Your task to perform on an android device: toggle airplane mode Image 0: 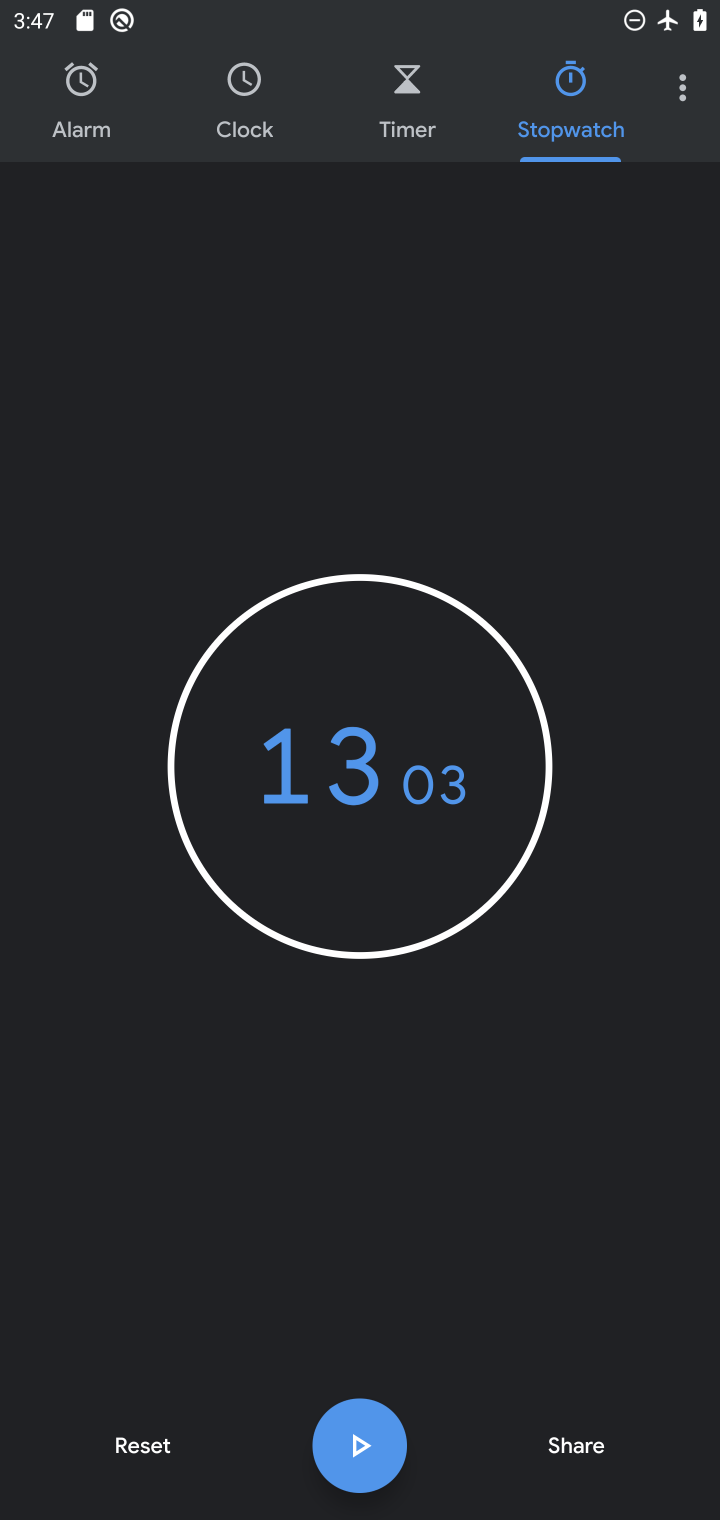
Step 0: press home button
Your task to perform on an android device: toggle airplane mode Image 1: 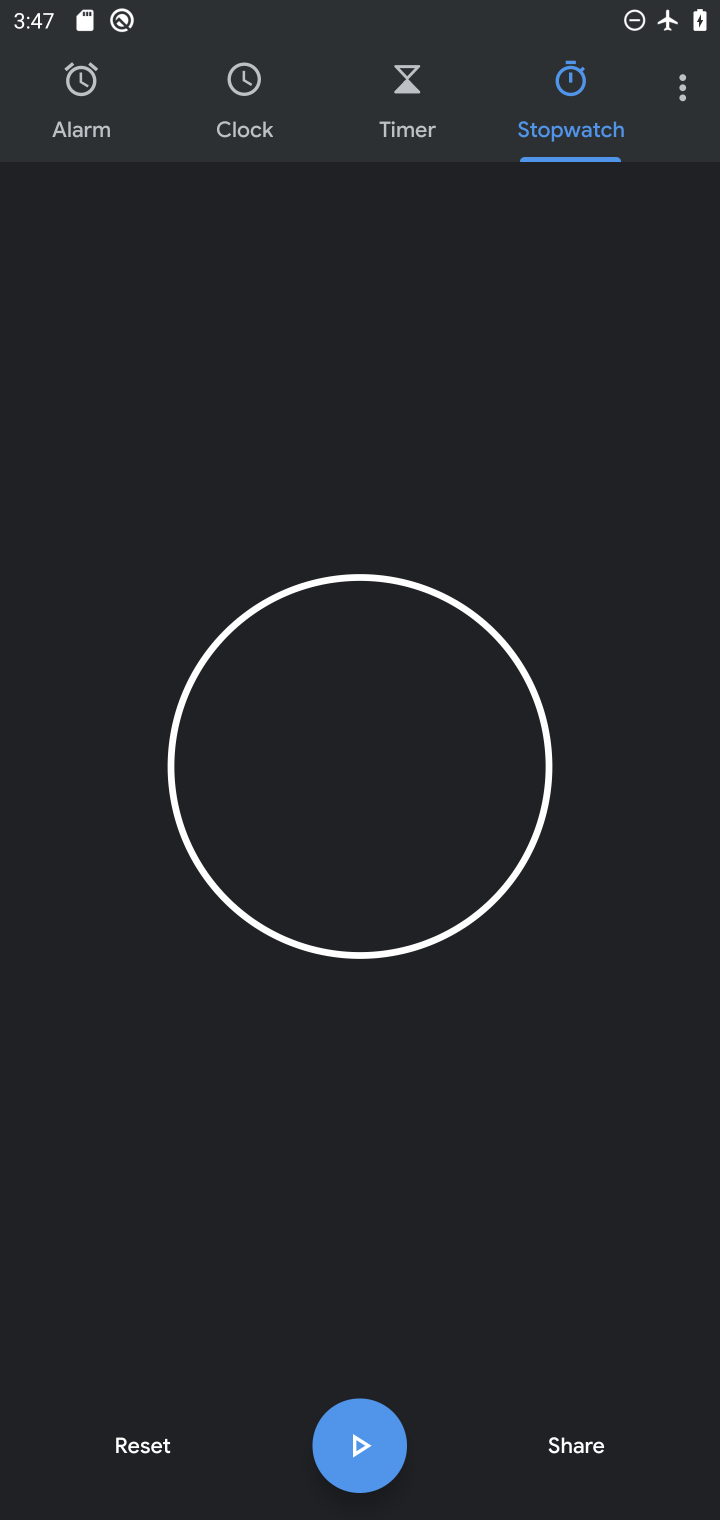
Step 1: press home button
Your task to perform on an android device: toggle airplane mode Image 2: 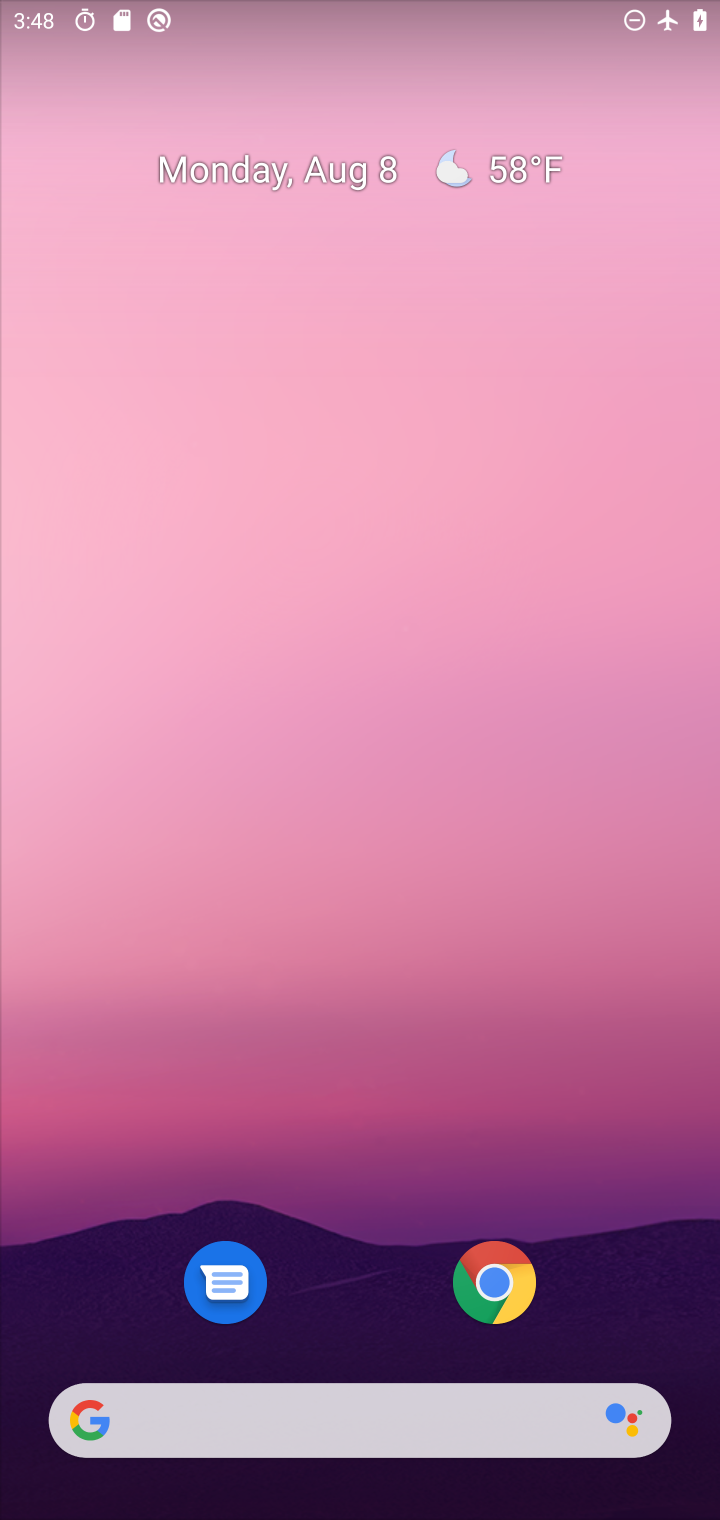
Step 2: drag from (394, 1254) to (474, 401)
Your task to perform on an android device: toggle airplane mode Image 3: 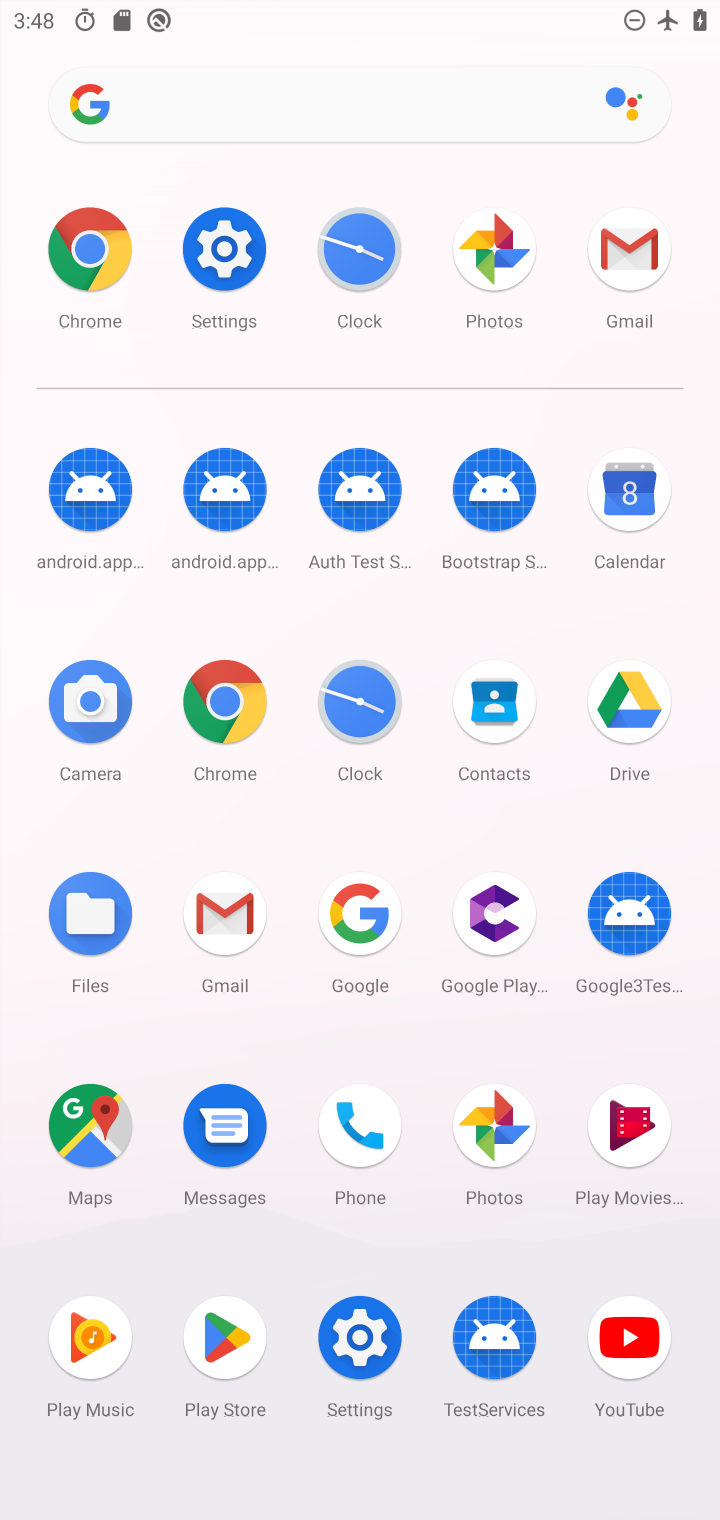
Step 3: click (251, 250)
Your task to perform on an android device: toggle airplane mode Image 4: 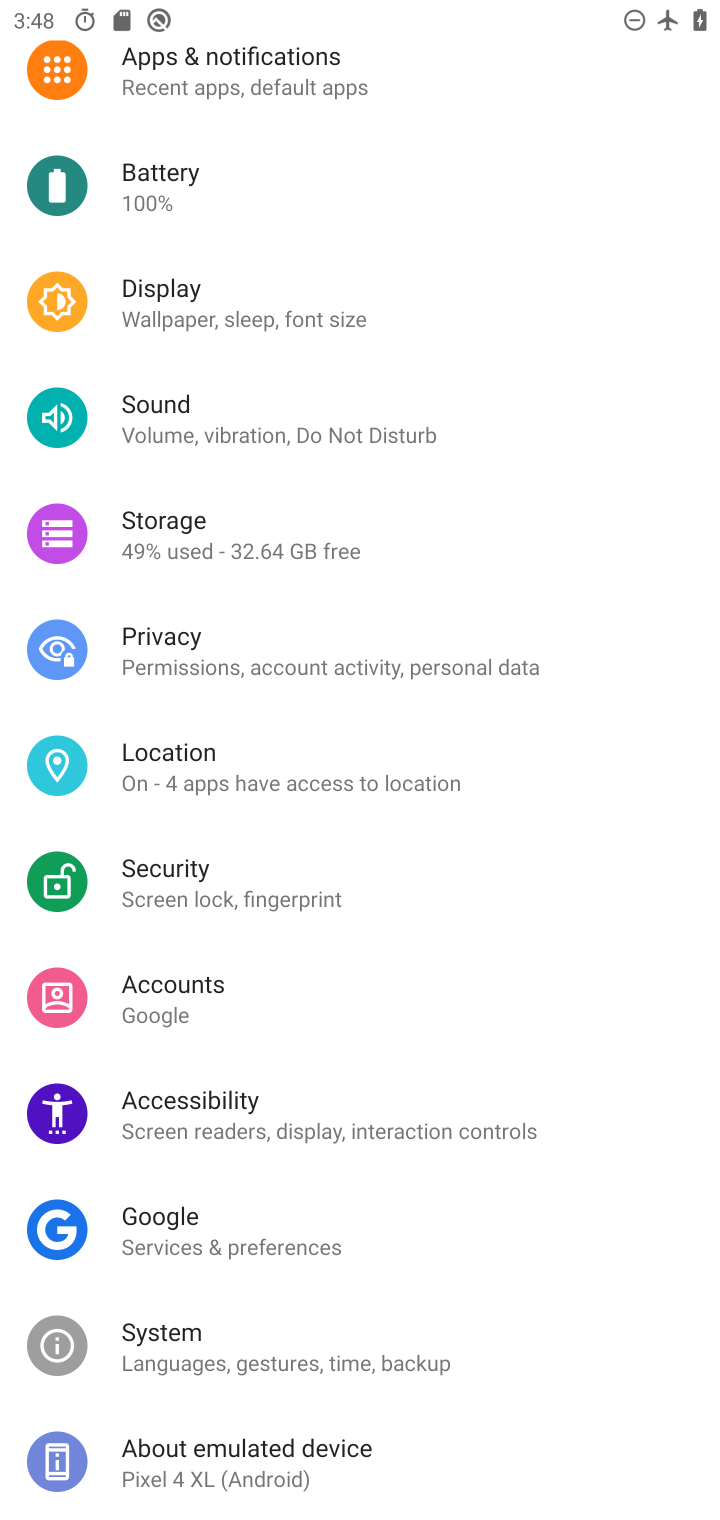
Step 4: drag from (289, 214) to (233, 1323)
Your task to perform on an android device: toggle airplane mode Image 5: 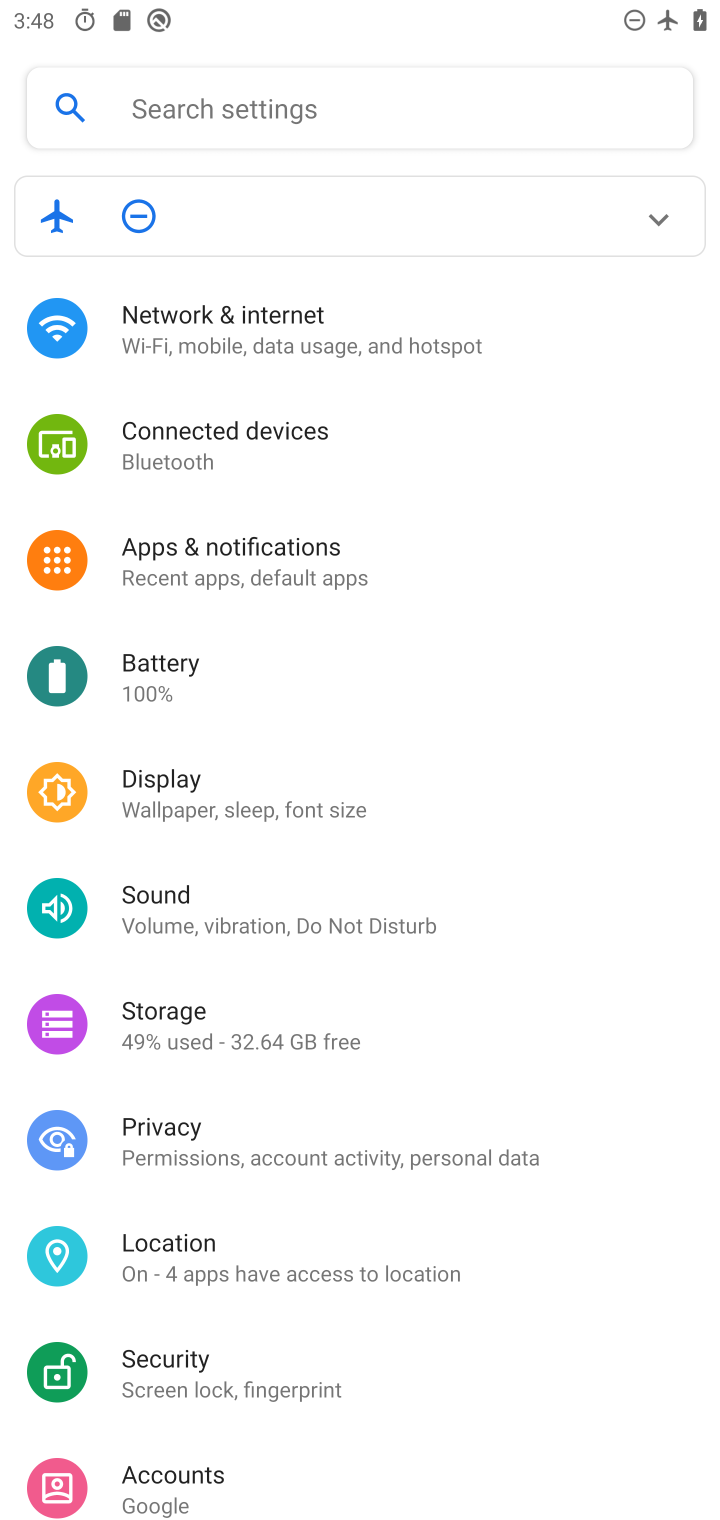
Step 5: click (224, 314)
Your task to perform on an android device: toggle airplane mode Image 6: 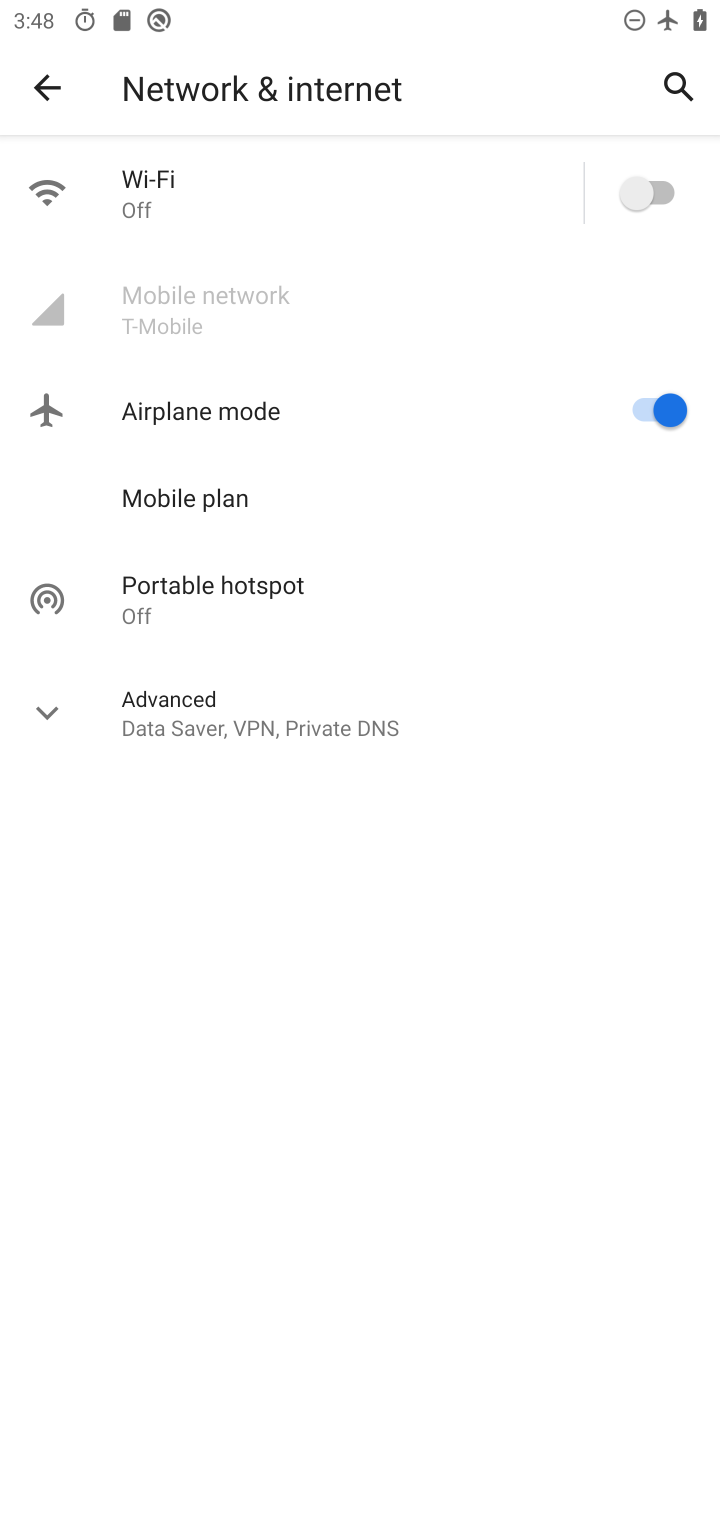
Step 6: click (649, 396)
Your task to perform on an android device: toggle airplane mode Image 7: 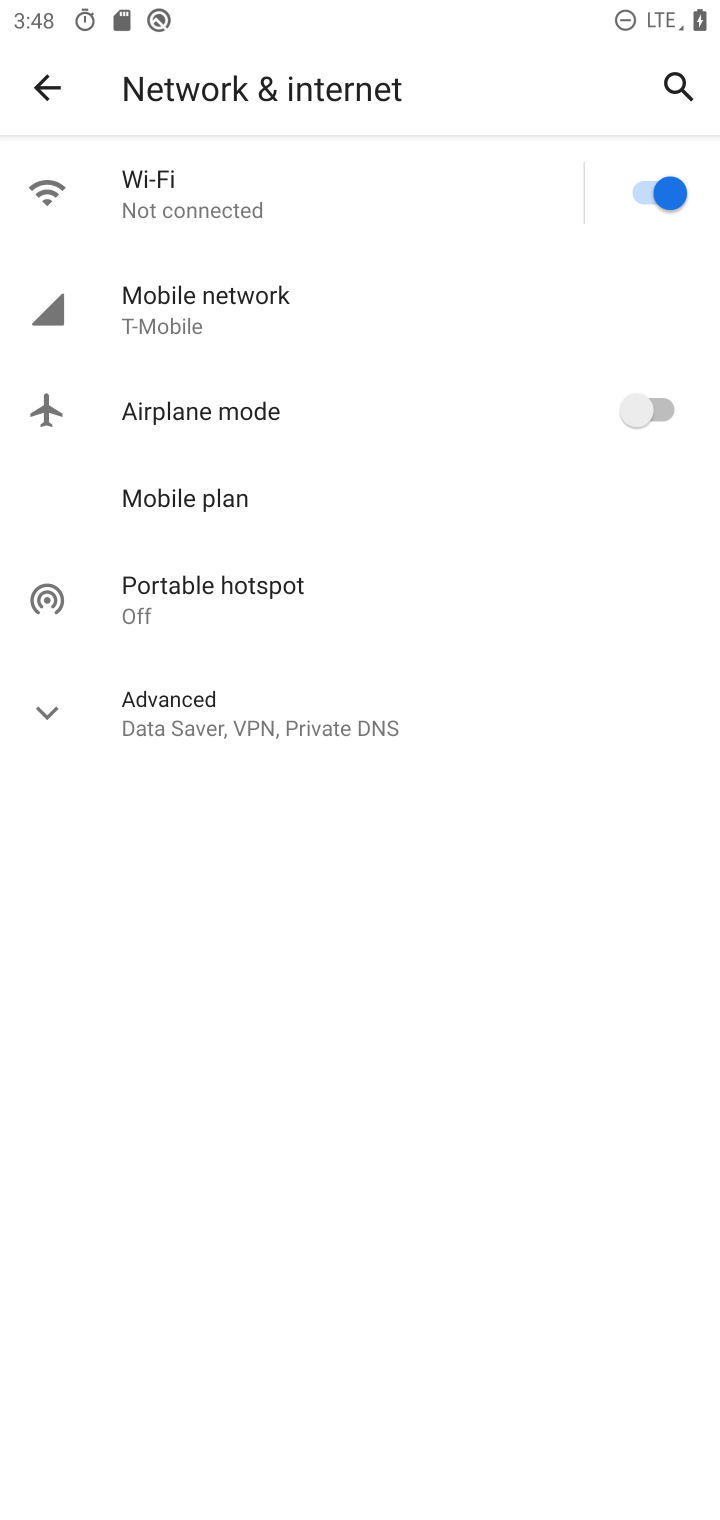
Step 7: task complete